Your task to perform on an android device: open a new tab in the chrome app Image 0: 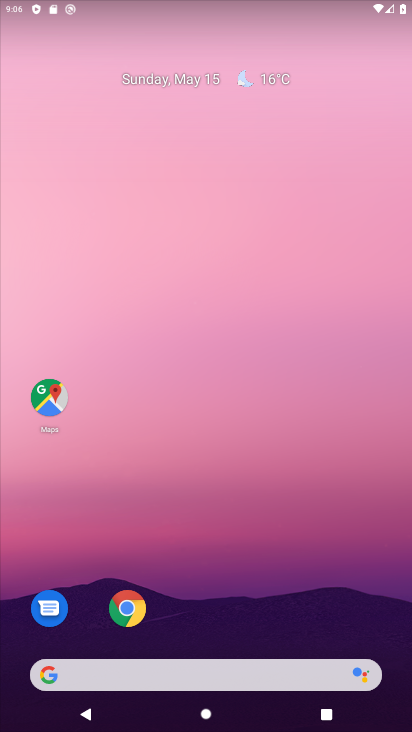
Step 0: drag from (223, 654) to (143, 103)
Your task to perform on an android device: open a new tab in the chrome app Image 1: 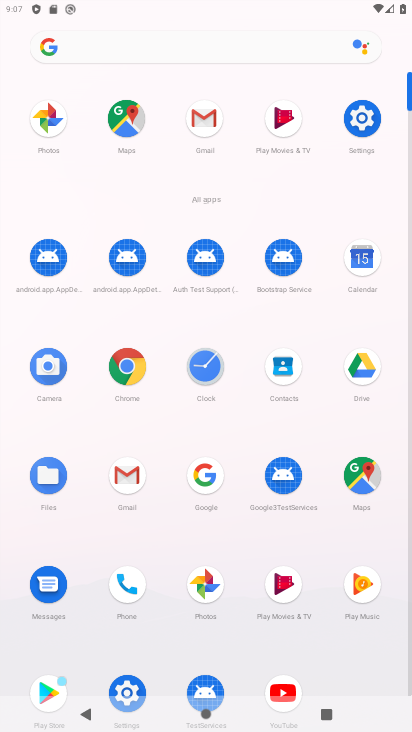
Step 1: click (120, 369)
Your task to perform on an android device: open a new tab in the chrome app Image 2: 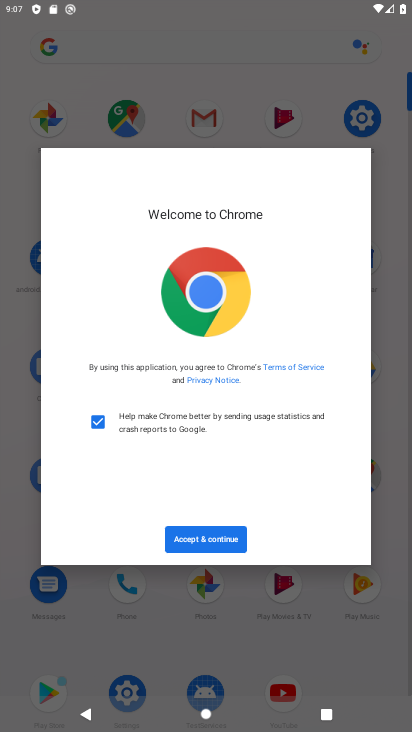
Step 2: click (237, 541)
Your task to perform on an android device: open a new tab in the chrome app Image 3: 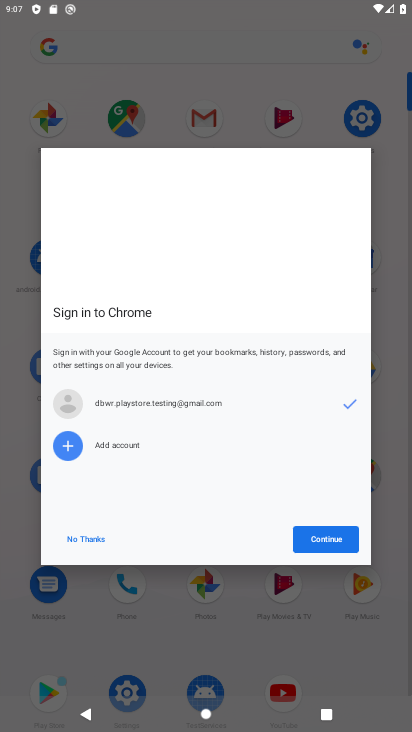
Step 3: click (320, 540)
Your task to perform on an android device: open a new tab in the chrome app Image 4: 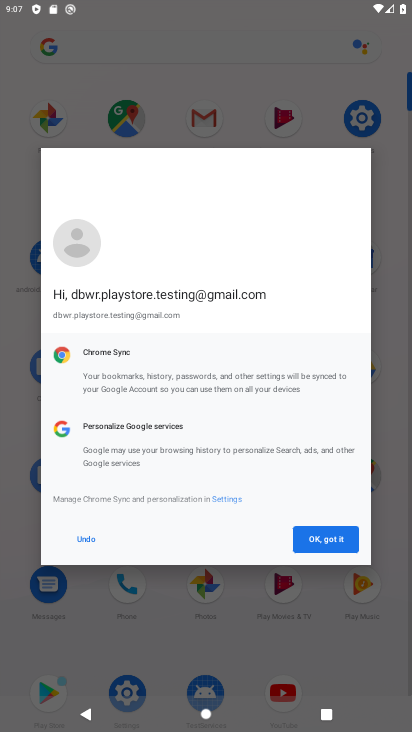
Step 4: click (313, 542)
Your task to perform on an android device: open a new tab in the chrome app Image 5: 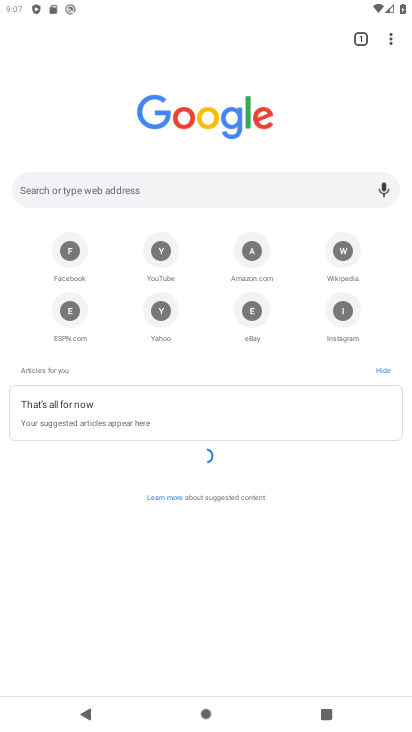
Step 5: click (355, 42)
Your task to perform on an android device: open a new tab in the chrome app Image 6: 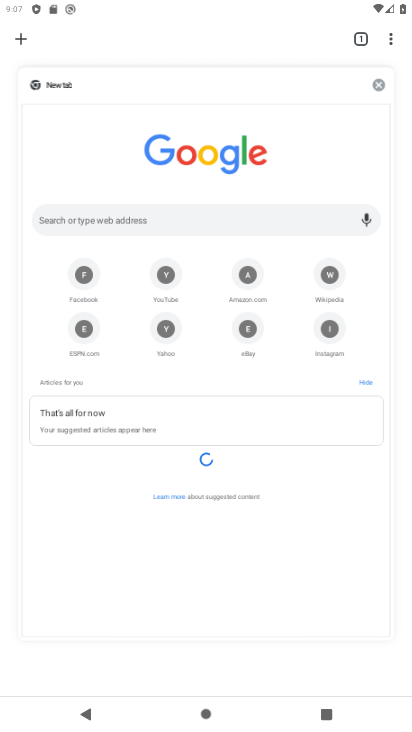
Step 6: click (19, 38)
Your task to perform on an android device: open a new tab in the chrome app Image 7: 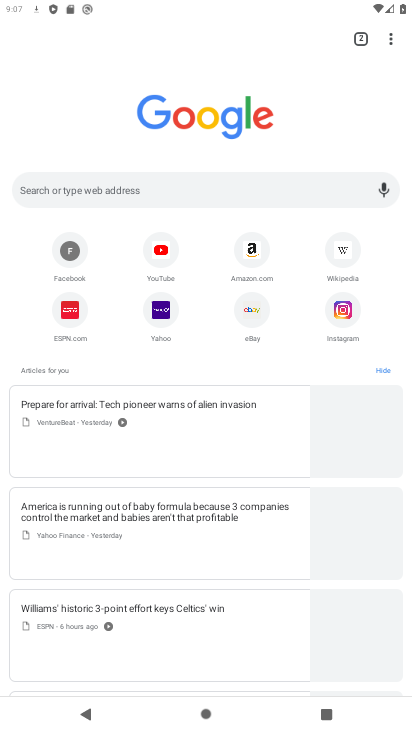
Step 7: task complete